Your task to perform on an android device: Do I have any events tomorrow? Image 0: 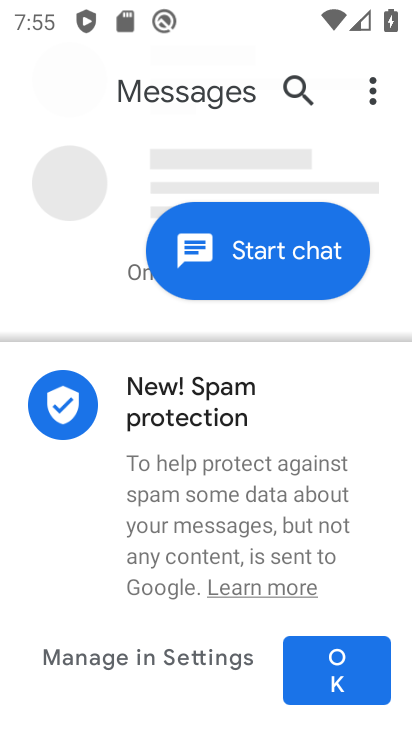
Step 0: press home button
Your task to perform on an android device: Do I have any events tomorrow? Image 1: 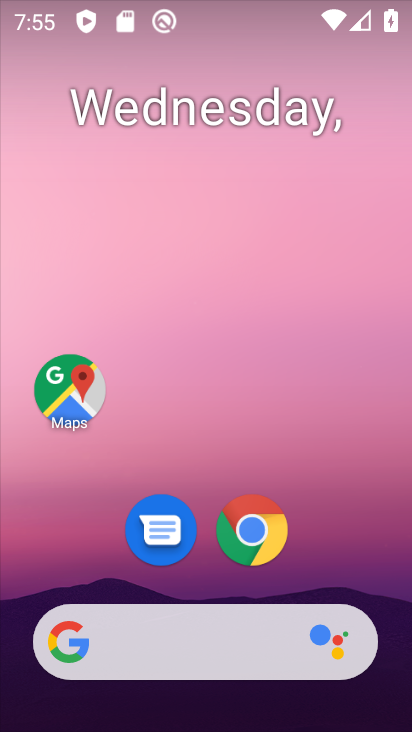
Step 1: drag from (183, 513) to (231, 183)
Your task to perform on an android device: Do I have any events tomorrow? Image 2: 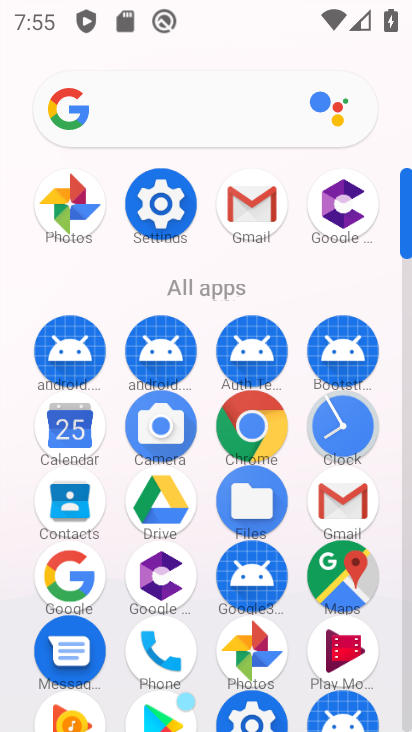
Step 2: click (61, 422)
Your task to perform on an android device: Do I have any events tomorrow? Image 3: 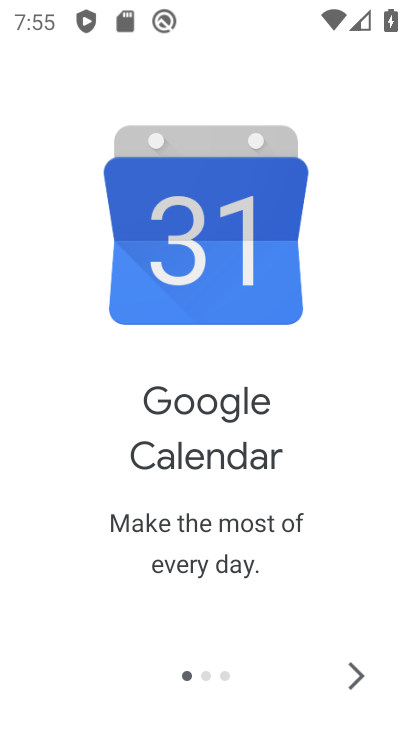
Step 3: click (367, 683)
Your task to perform on an android device: Do I have any events tomorrow? Image 4: 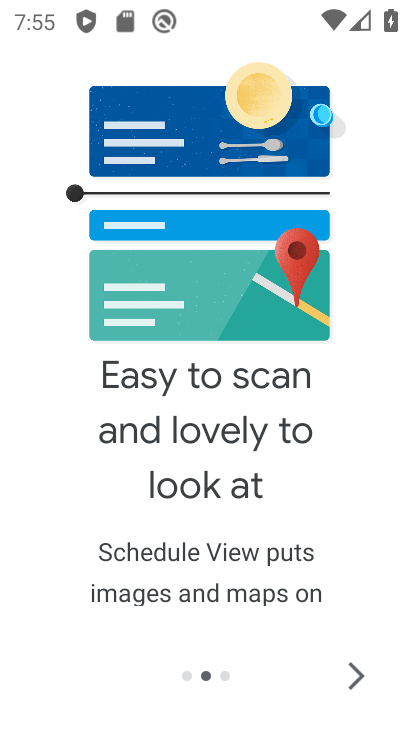
Step 4: click (368, 680)
Your task to perform on an android device: Do I have any events tomorrow? Image 5: 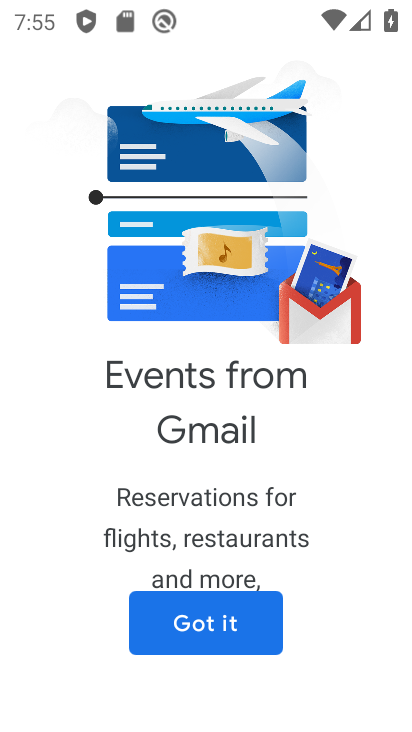
Step 5: click (258, 621)
Your task to perform on an android device: Do I have any events tomorrow? Image 6: 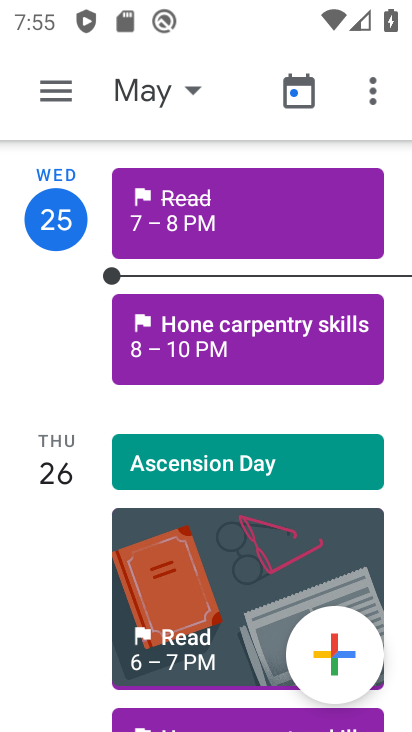
Step 6: drag from (232, 589) to (280, 141)
Your task to perform on an android device: Do I have any events tomorrow? Image 7: 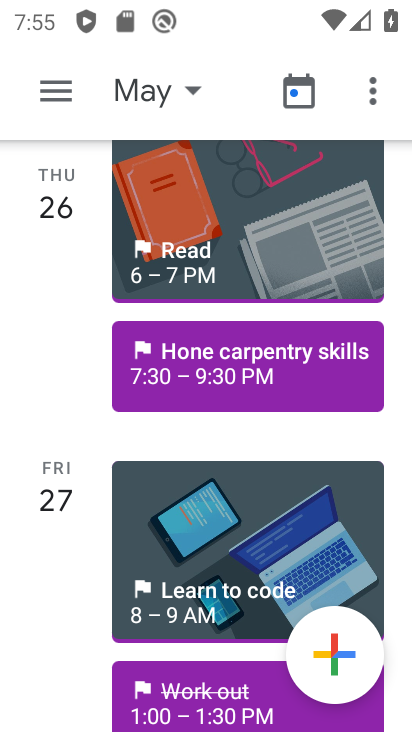
Step 7: drag from (224, 612) to (258, 267)
Your task to perform on an android device: Do I have any events tomorrow? Image 8: 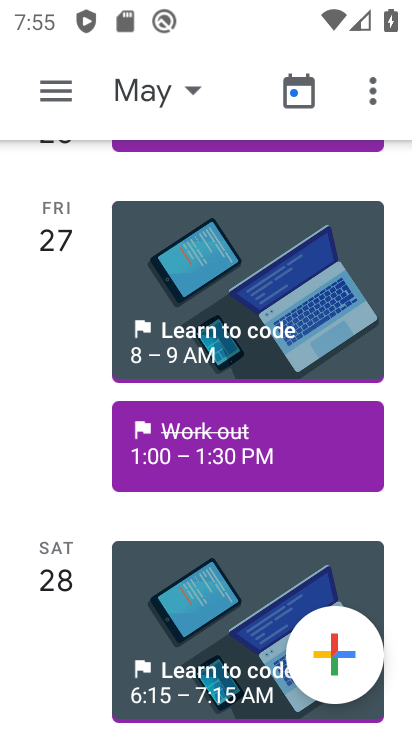
Step 8: click (225, 322)
Your task to perform on an android device: Do I have any events tomorrow? Image 9: 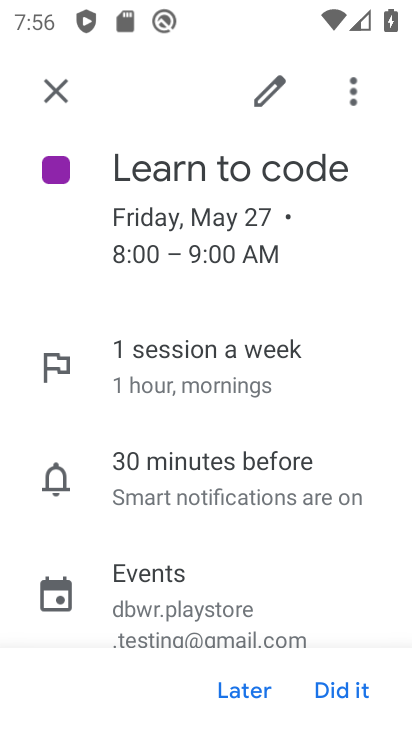
Step 9: task complete